Your task to perform on an android device: Toggle the flashlight Image 0: 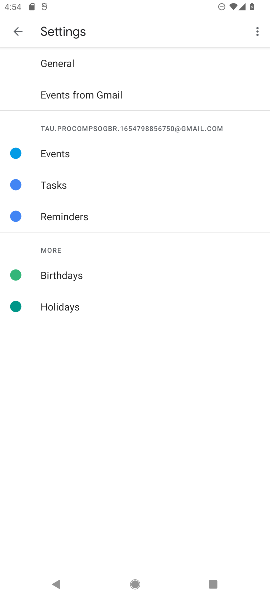
Step 0: click (11, 31)
Your task to perform on an android device: Toggle the flashlight Image 1: 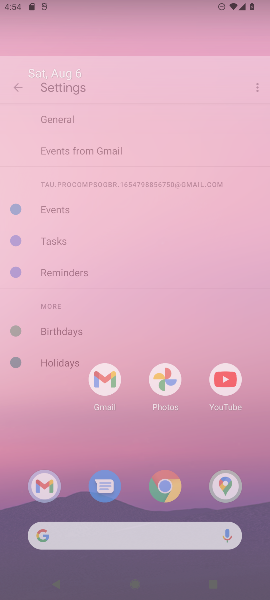
Step 1: task complete